Your task to perform on an android device: Check the news Image 0: 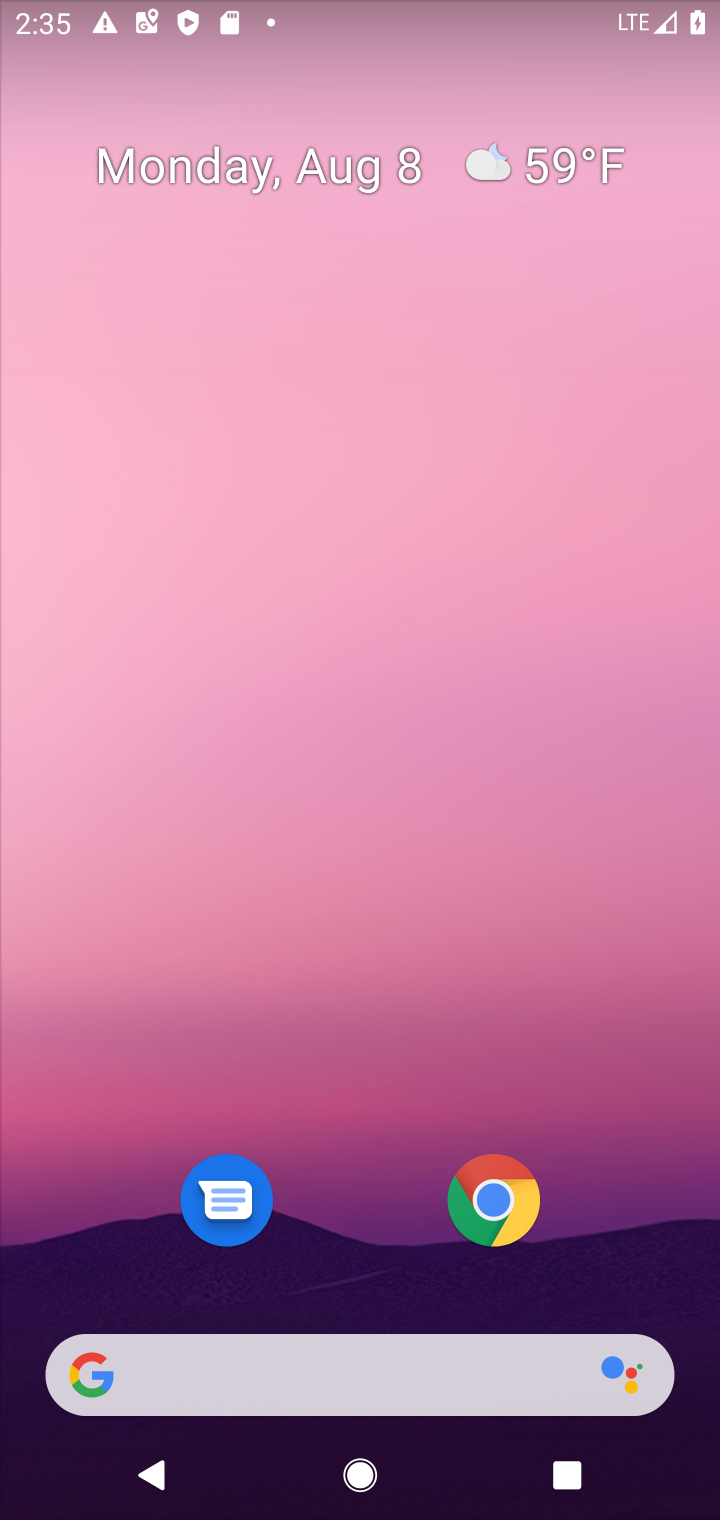
Step 0: click (262, 1374)
Your task to perform on an android device: Check the news Image 1: 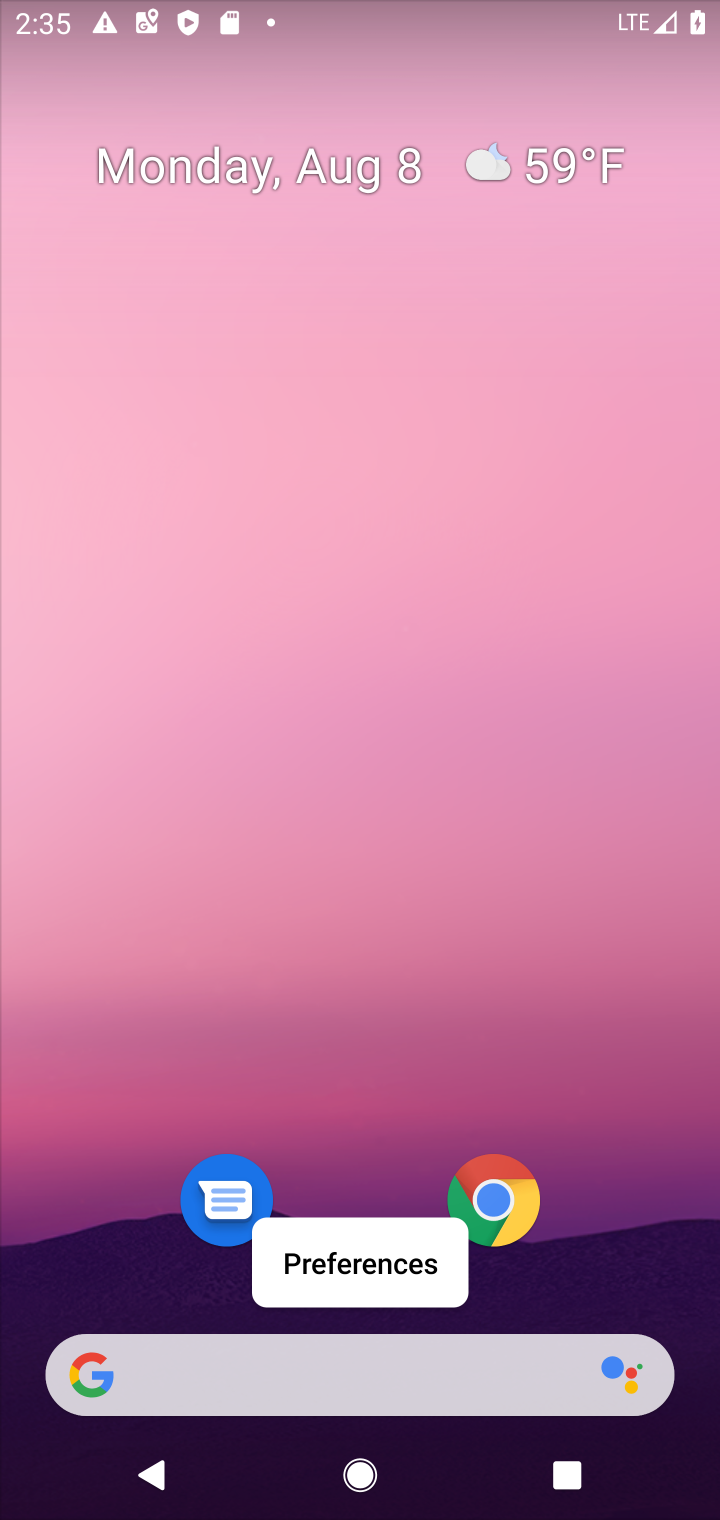
Step 1: click (262, 1374)
Your task to perform on an android device: Check the news Image 2: 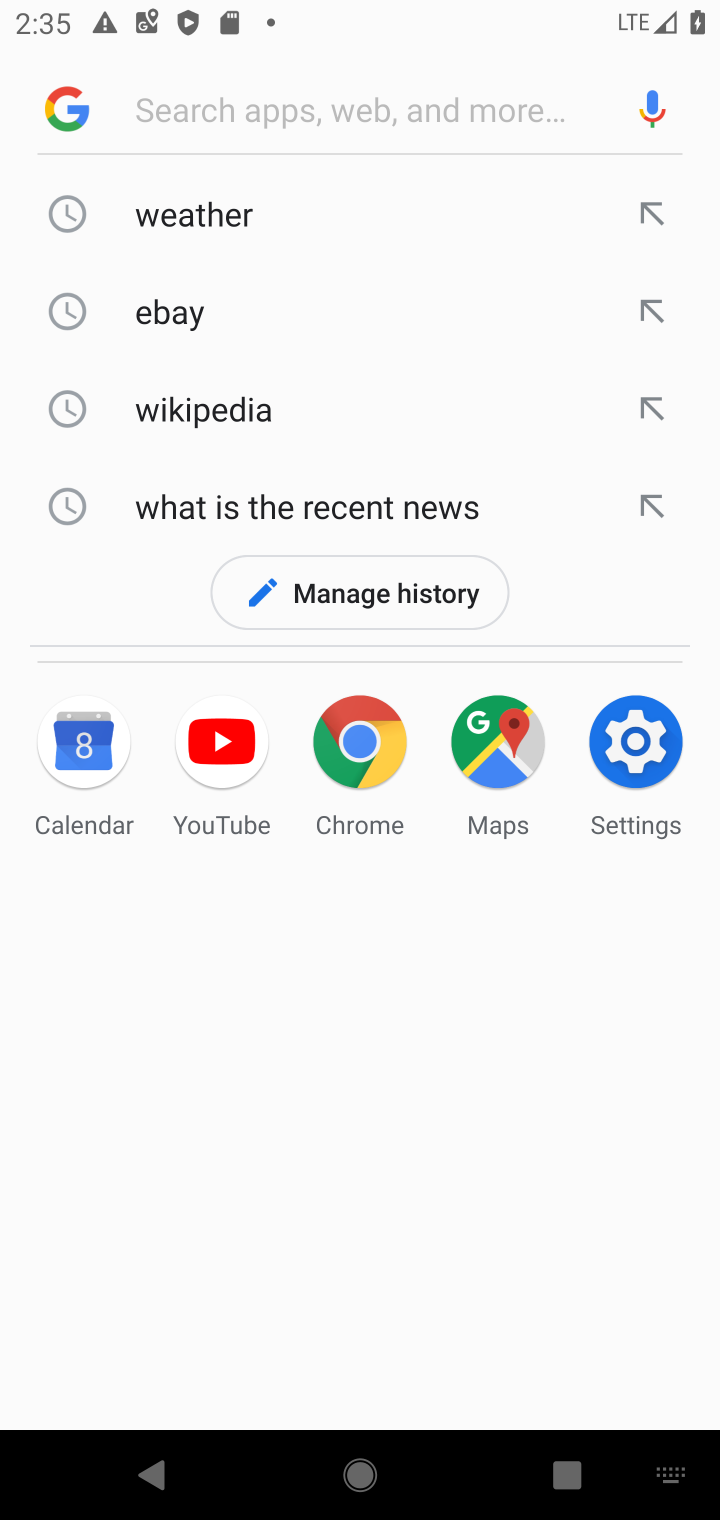
Step 2: click (260, 100)
Your task to perform on an android device: Check the news Image 3: 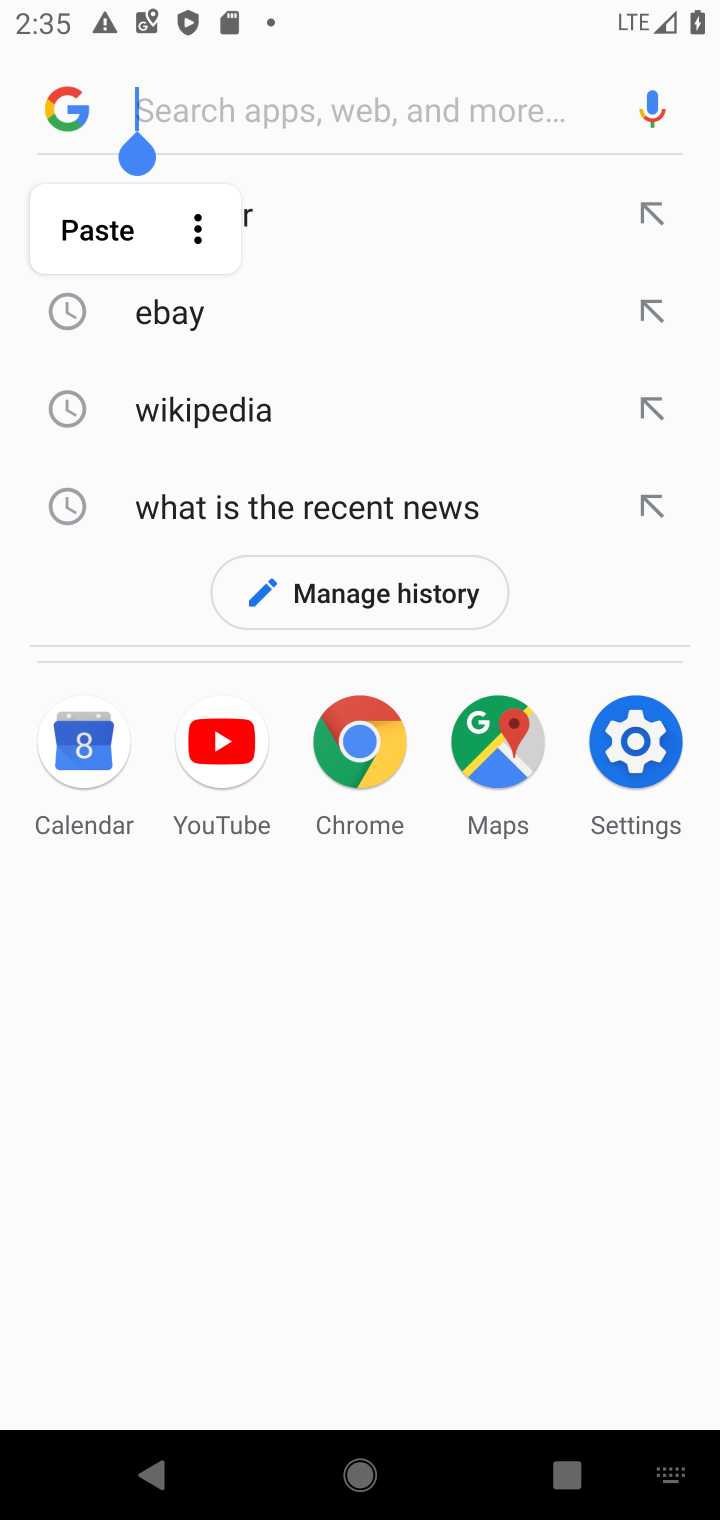
Step 3: type "news"
Your task to perform on an android device: Check the news Image 4: 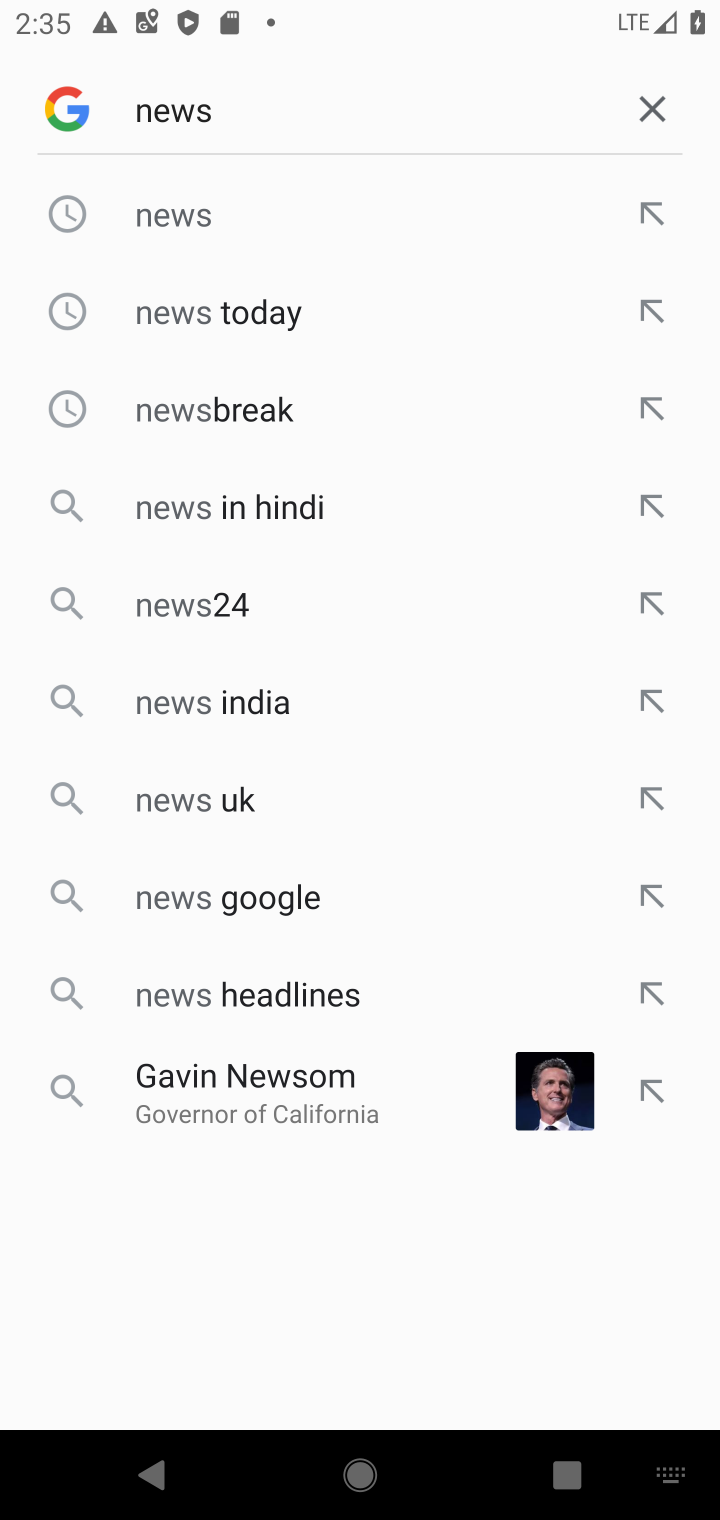
Step 4: click (244, 215)
Your task to perform on an android device: Check the news Image 5: 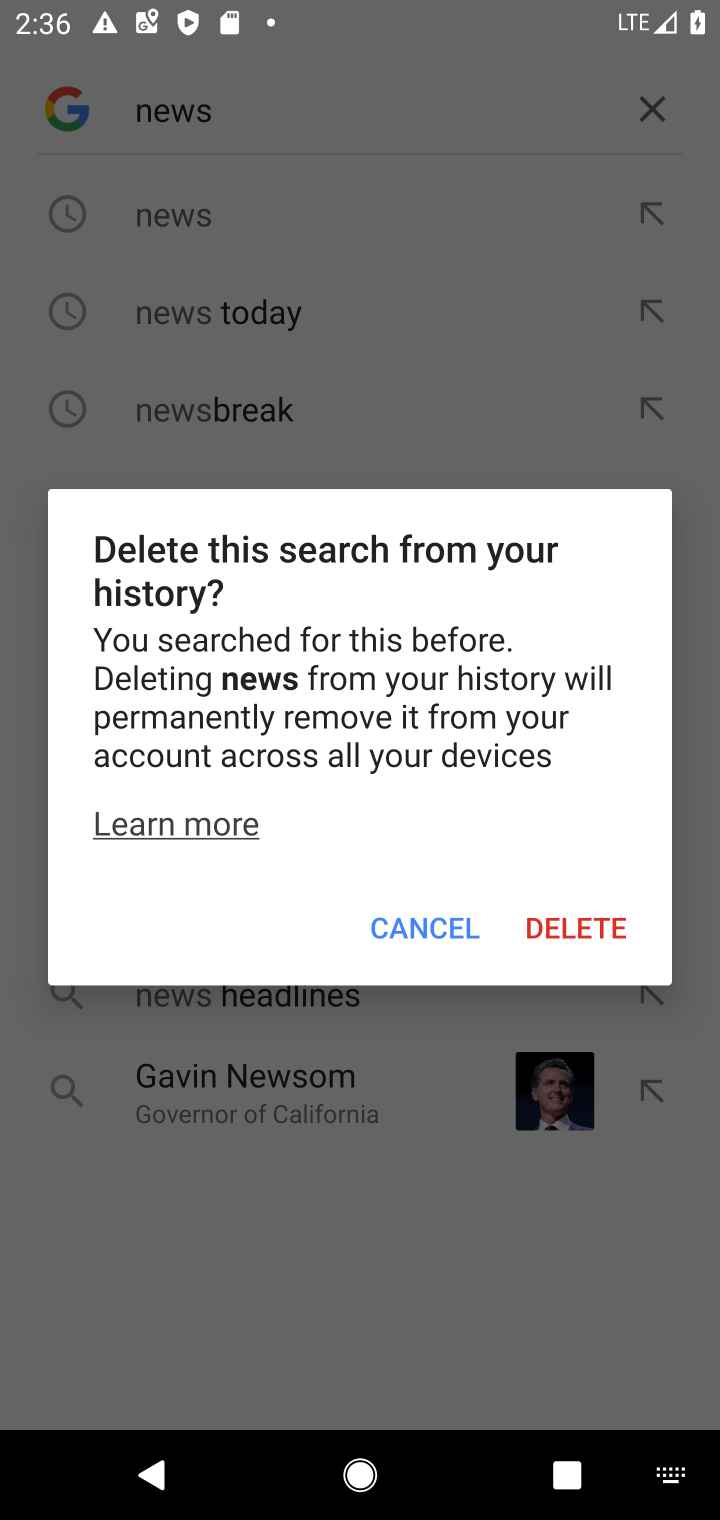
Step 5: click (416, 921)
Your task to perform on an android device: Check the news Image 6: 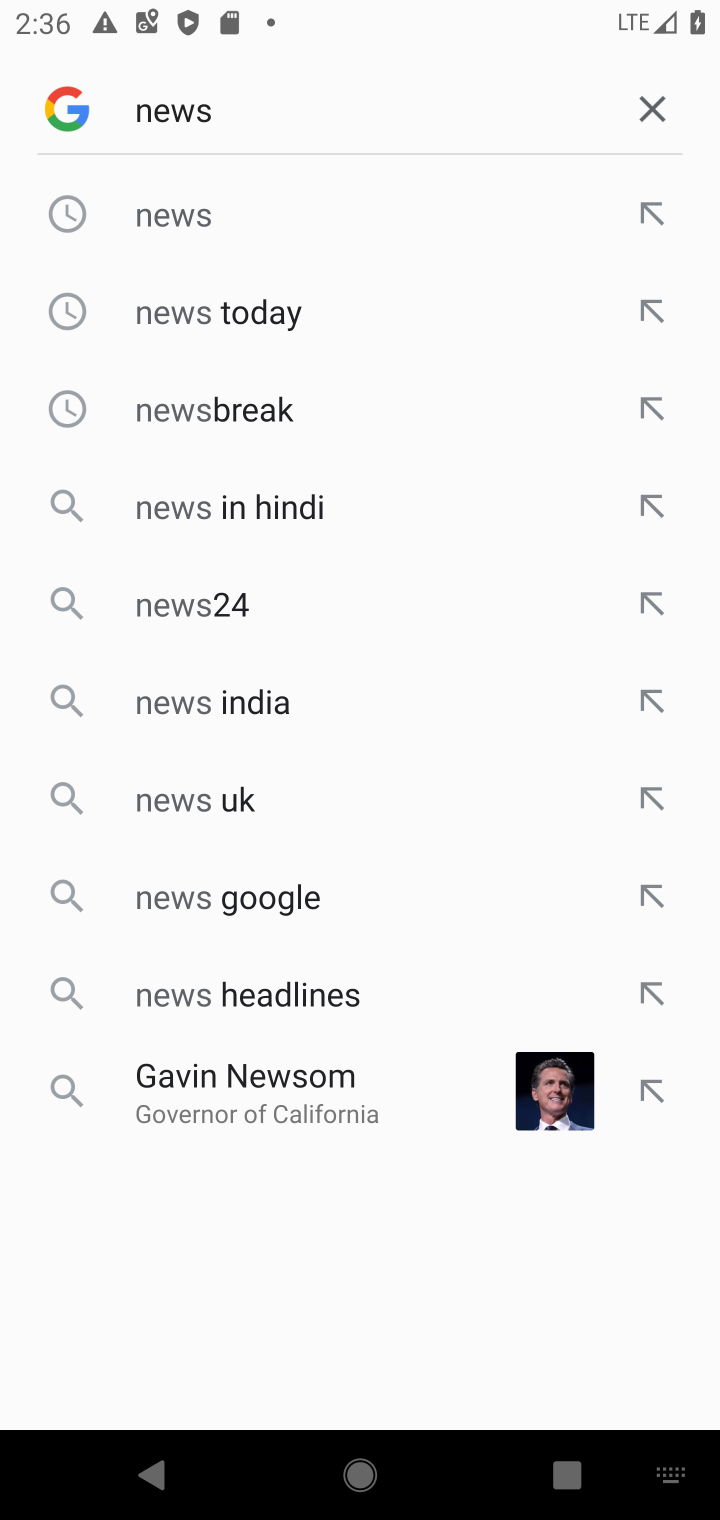
Step 6: click (226, 185)
Your task to perform on an android device: Check the news Image 7: 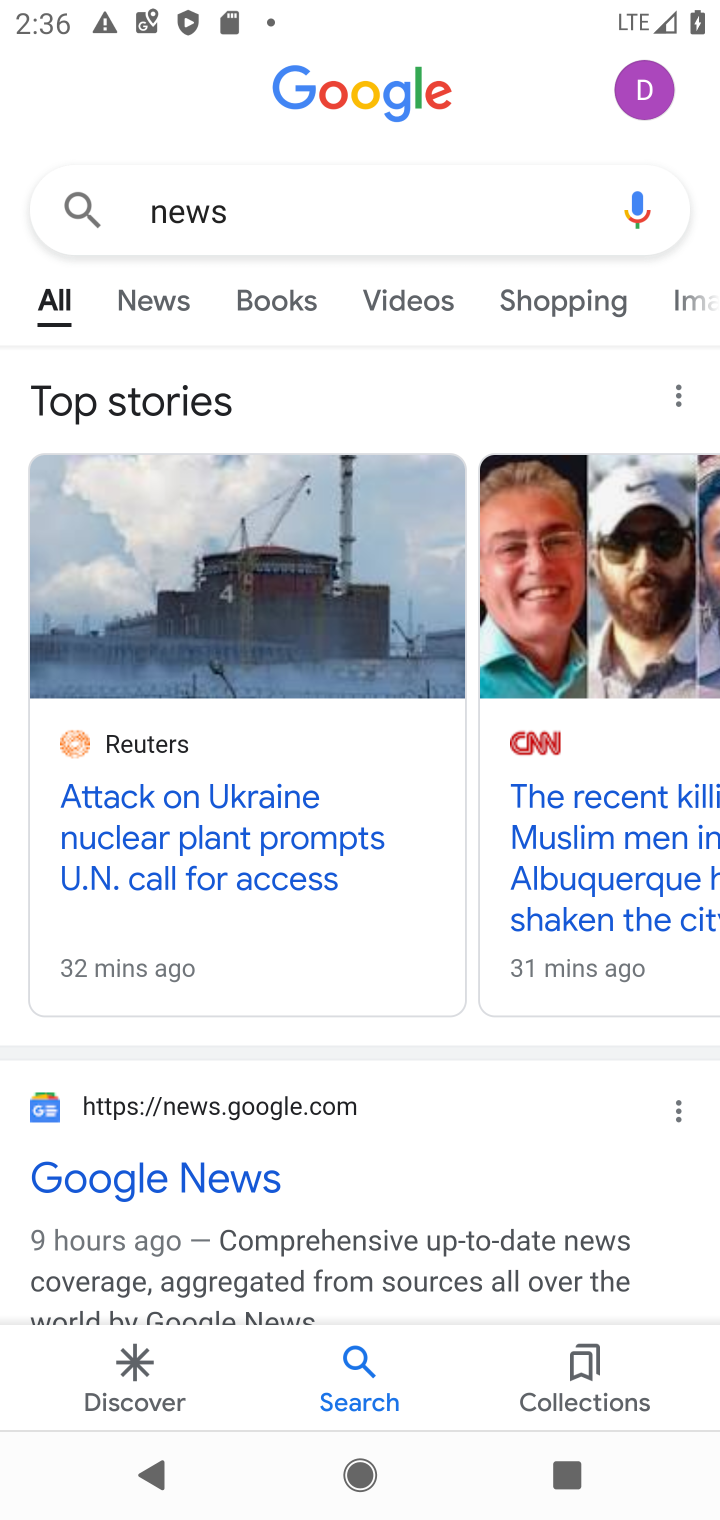
Step 7: task complete